Your task to perform on an android device: turn off airplane mode Image 0: 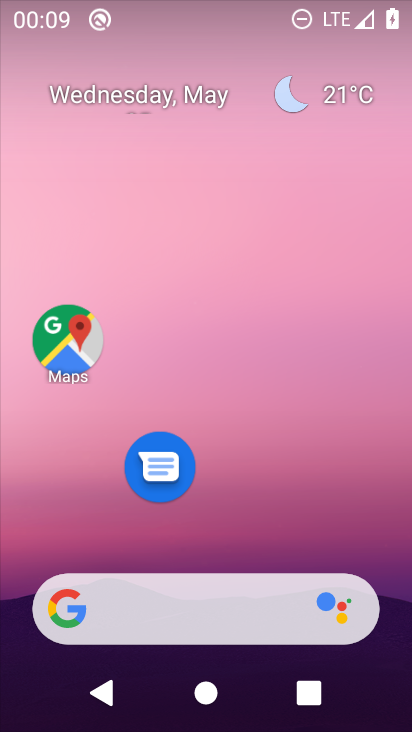
Step 0: drag from (189, 532) to (291, 285)
Your task to perform on an android device: turn off airplane mode Image 1: 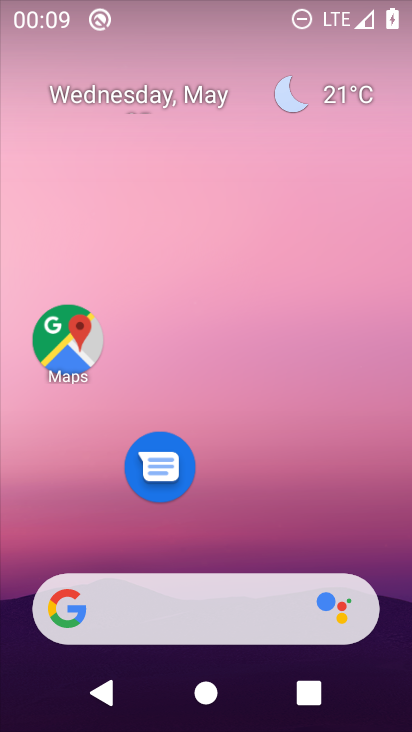
Step 1: drag from (235, 490) to (260, 136)
Your task to perform on an android device: turn off airplane mode Image 2: 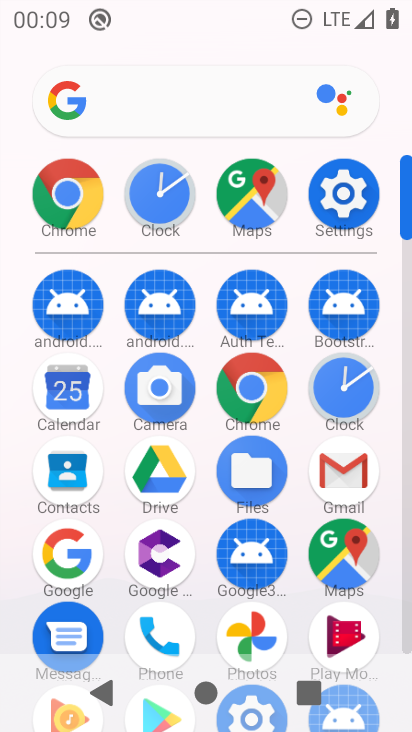
Step 2: click (353, 198)
Your task to perform on an android device: turn off airplane mode Image 3: 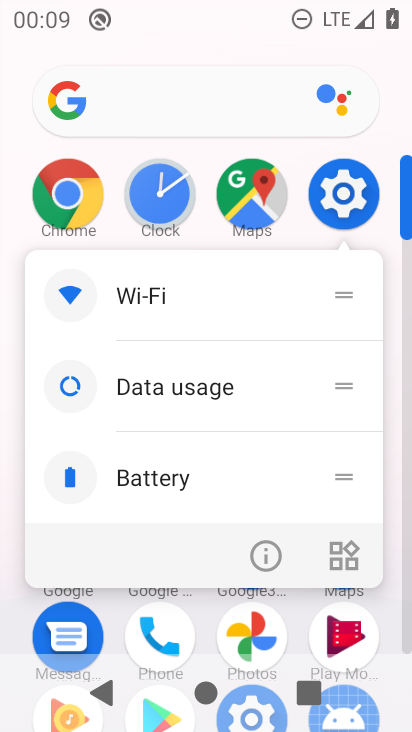
Step 3: click (248, 558)
Your task to perform on an android device: turn off airplane mode Image 4: 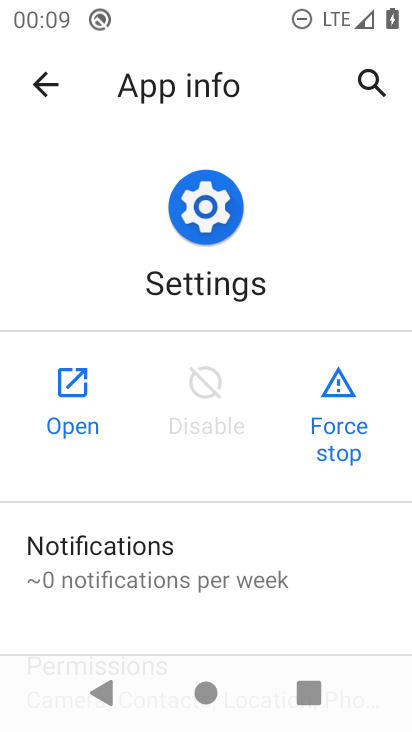
Step 4: click (60, 418)
Your task to perform on an android device: turn off airplane mode Image 5: 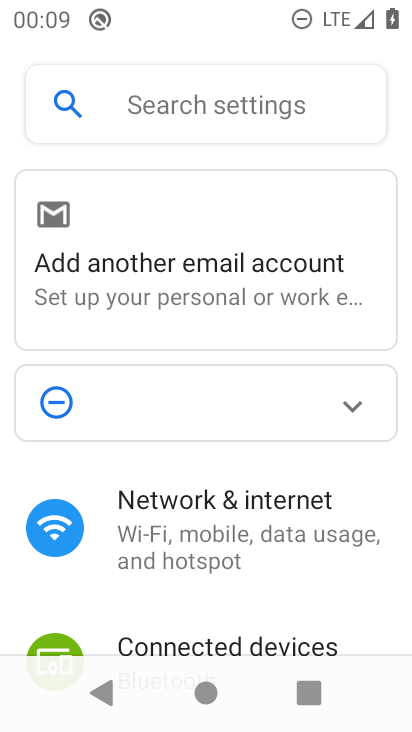
Step 5: drag from (179, 552) to (304, 180)
Your task to perform on an android device: turn off airplane mode Image 6: 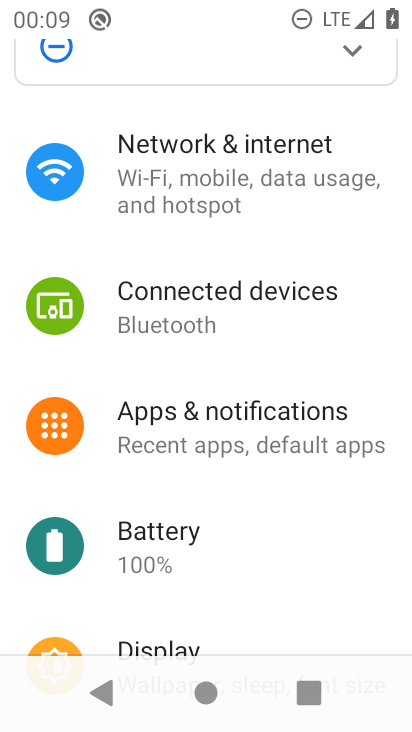
Step 6: click (228, 161)
Your task to perform on an android device: turn off airplane mode Image 7: 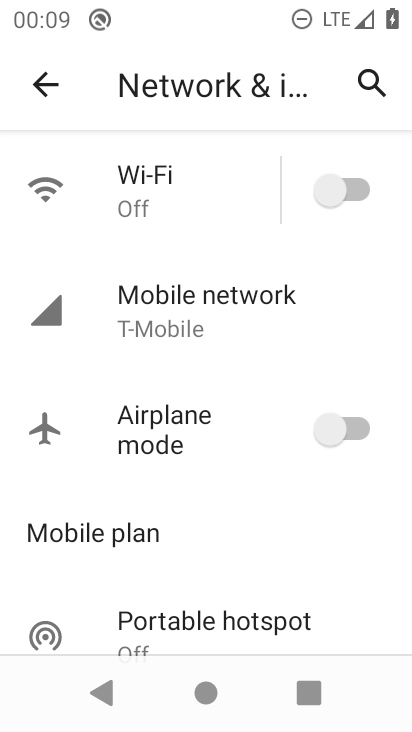
Step 7: task complete